Your task to perform on an android device: search for starred emails in the gmail app Image 0: 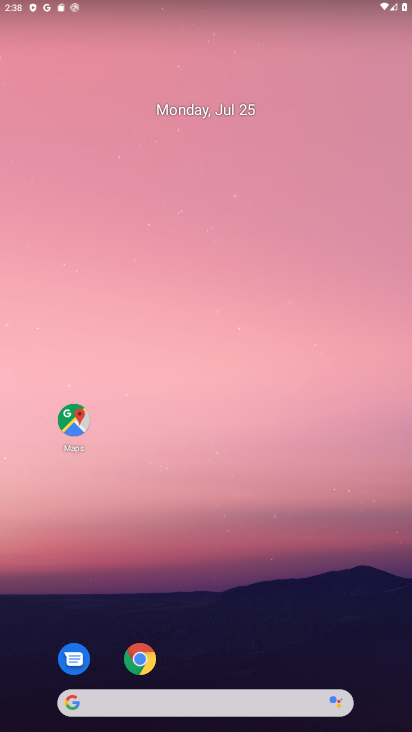
Step 0: click (207, 562)
Your task to perform on an android device: search for starred emails in the gmail app Image 1: 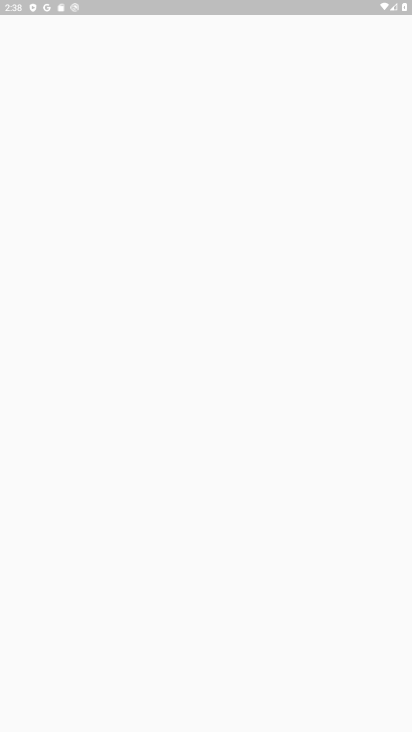
Step 1: press home button
Your task to perform on an android device: search for starred emails in the gmail app Image 2: 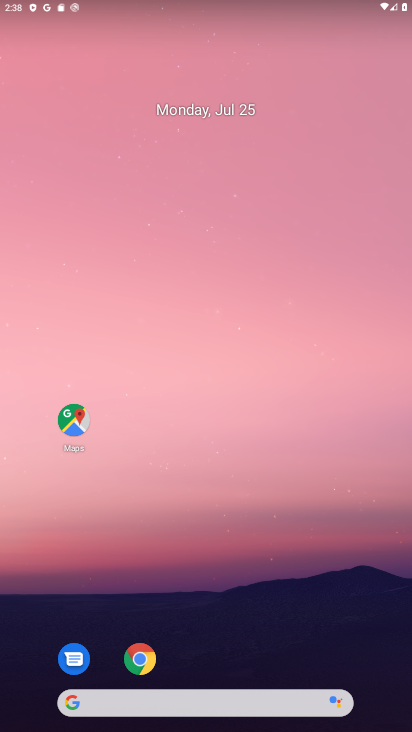
Step 2: drag from (200, 676) to (169, 95)
Your task to perform on an android device: search for starred emails in the gmail app Image 3: 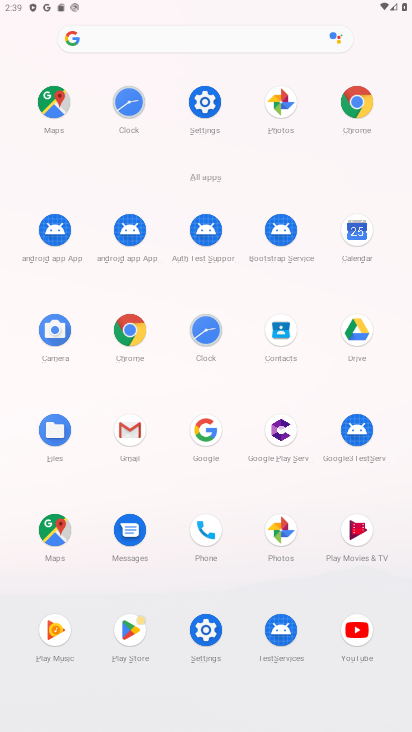
Step 3: click (110, 443)
Your task to perform on an android device: search for starred emails in the gmail app Image 4: 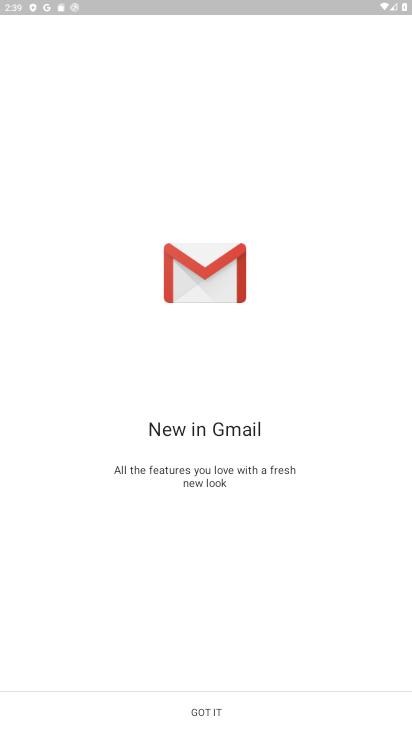
Step 4: click (220, 711)
Your task to perform on an android device: search for starred emails in the gmail app Image 5: 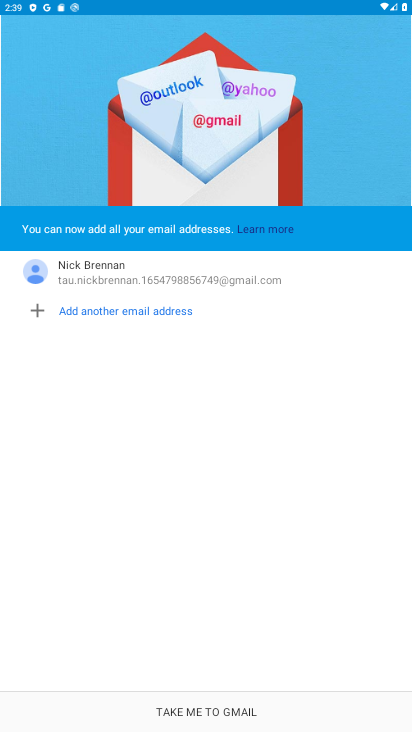
Step 5: click (174, 707)
Your task to perform on an android device: search for starred emails in the gmail app Image 6: 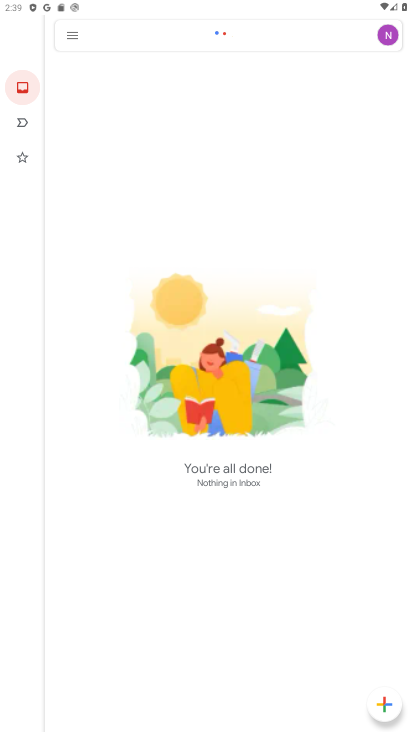
Step 6: click (65, 42)
Your task to perform on an android device: search for starred emails in the gmail app Image 7: 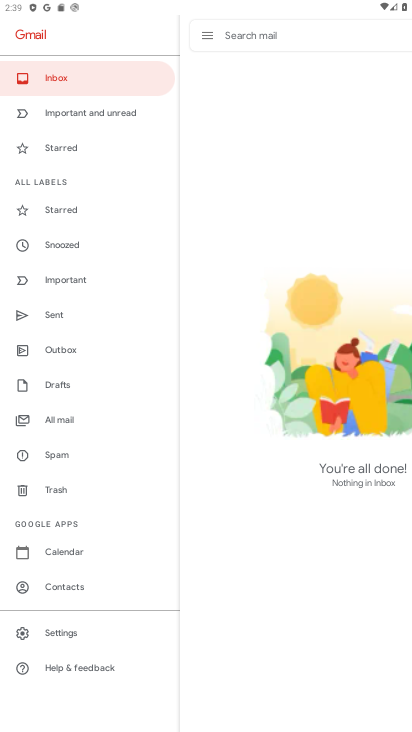
Step 7: click (62, 216)
Your task to perform on an android device: search for starred emails in the gmail app Image 8: 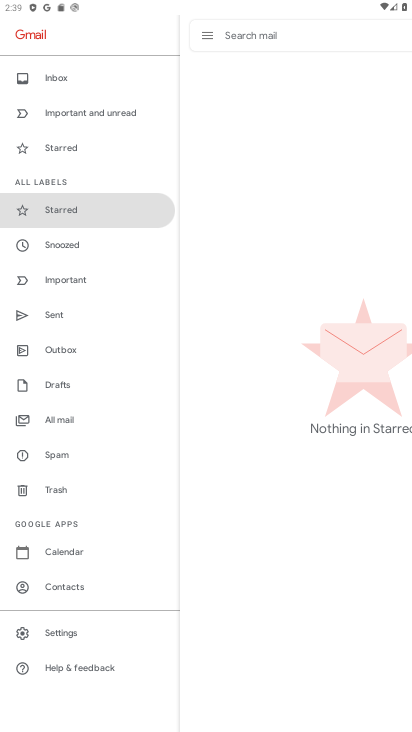
Step 8: task complete